Your task to perform on an android device: Turn off the flashlight Image 0: 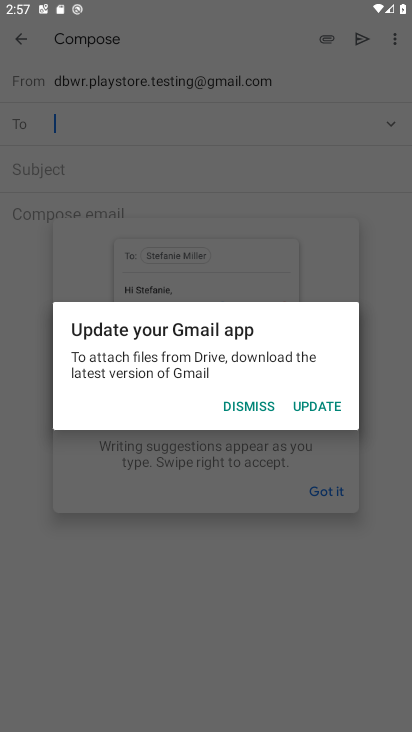
Step 0: press home button
Your task to perform on an android device: Turn off the flashlight Image 1: 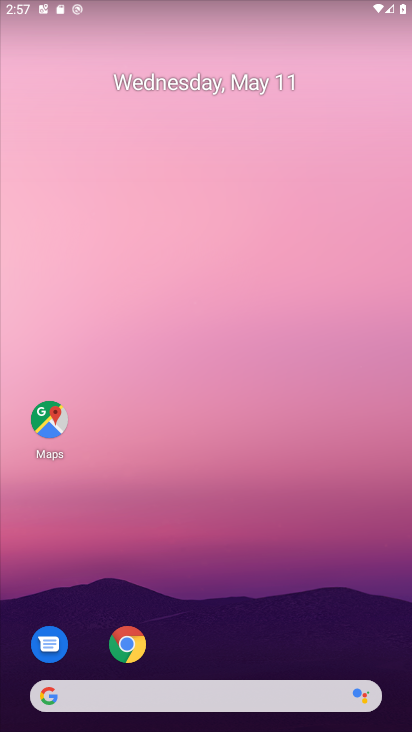
Step 1: drag from (169, 682) to (94, 5)
Your task to perform on an android device: Turn off the flashlight Image 2: 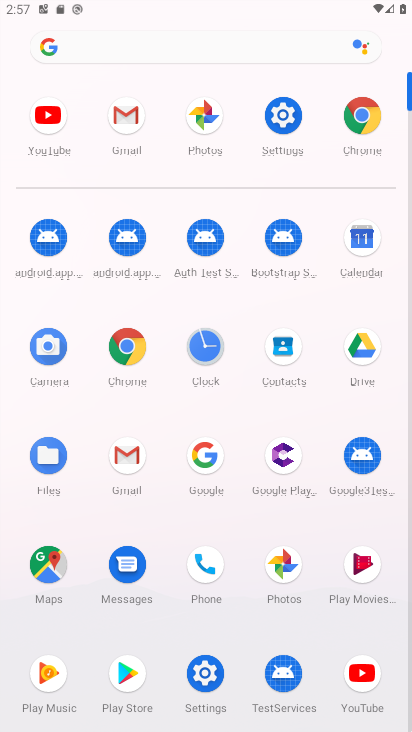
Step 2: click (264, 107)
Your task to perform on an android device: Turn off the flashlight Image 3: 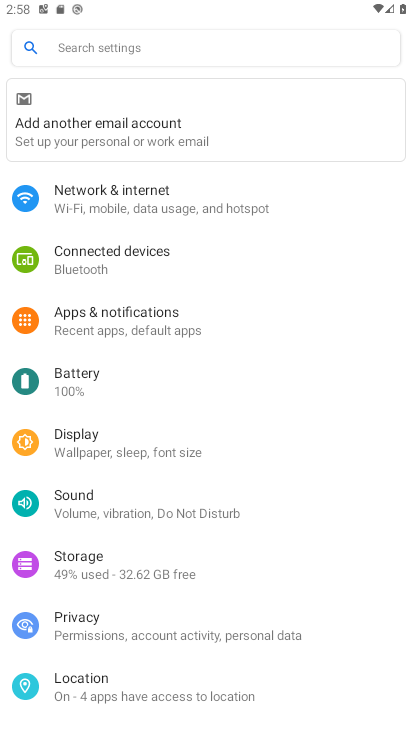
Step 3: click (175, 54)
Your task to perform on an android device: Turn off the flashlight Image 4: 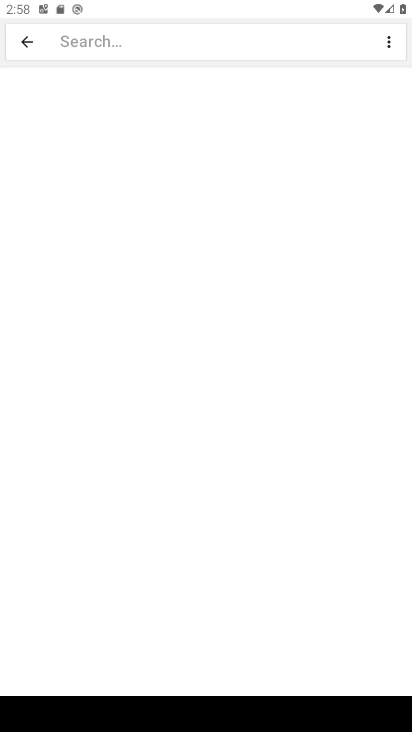
Step 4: type "flashlight"
Your task to perform on an android device: Turn off the flashlight Image 5: 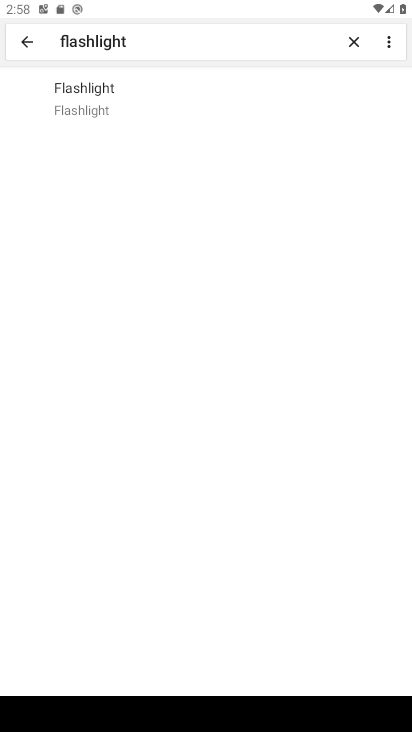
Step 5: task complete